Your task to perform on an android device: clear all cookies in the chrome app Image 0: 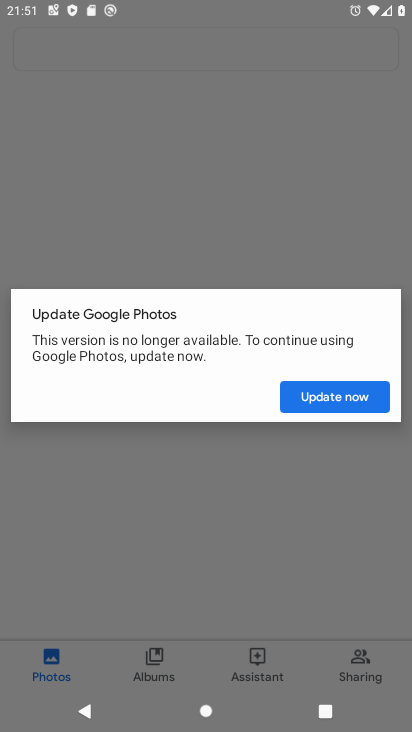
Step 0: press home button
Your task to perform on an android device: clear all cookies in the chrome app Image 1: 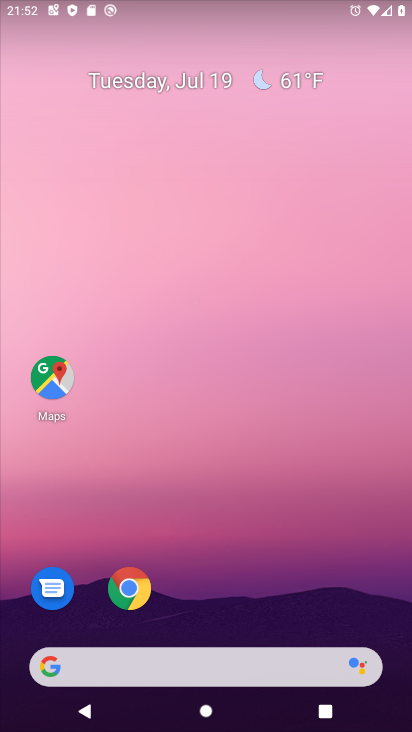
Step 1: click (124, 579)
Your task to perform on an android device: clear all cookies in the chrome app Image 2: 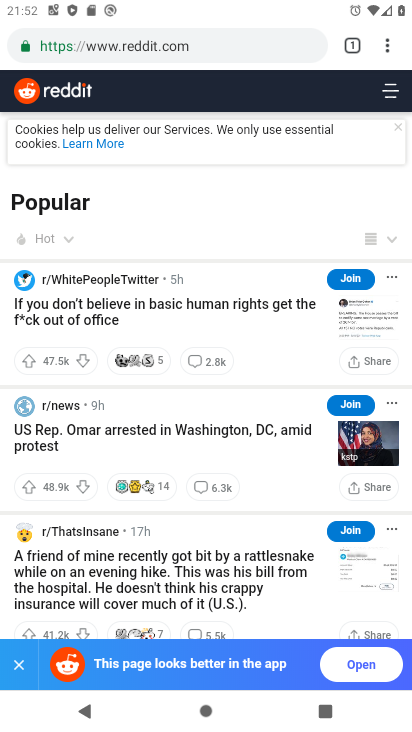
Step 2: click (386, 41)
Your task to perform on an android device: clear all cookies in the chrome app Image 3: 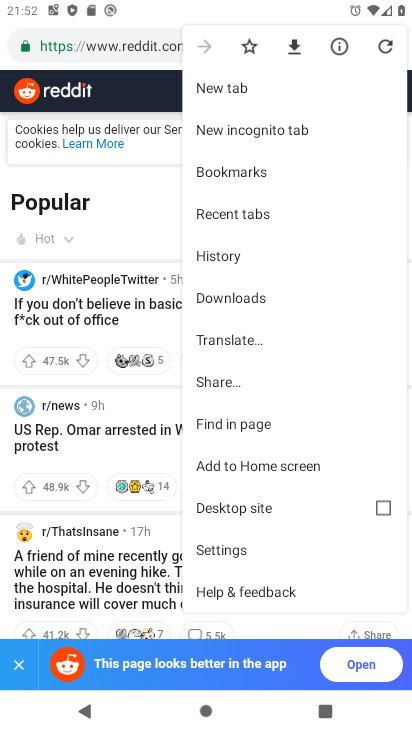
Step 3: click (250, 256)
Your task to perform on an android device: clear all cookies in the chrome app Image 4: 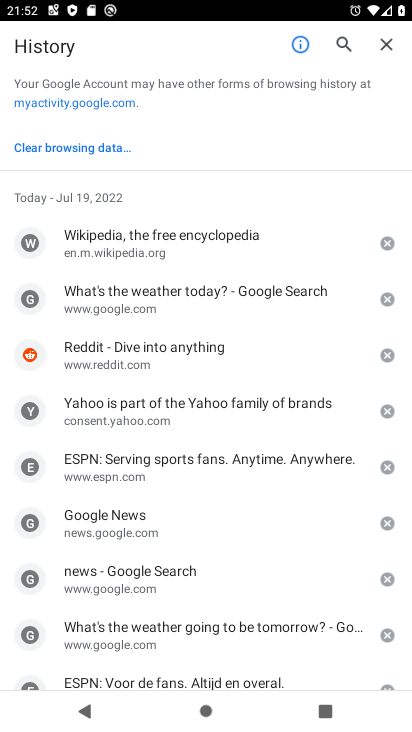
Step 4: click (74, 147)
Your task to perform on an android device: clear all cookies in the chrome app Image 5: 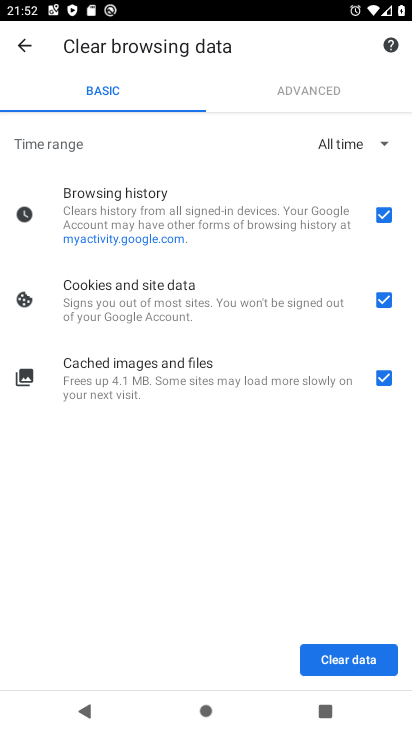
Step 5: click (343, 656)
Your task to perform on an android device: clear all cookies in the chrome app Image 6: 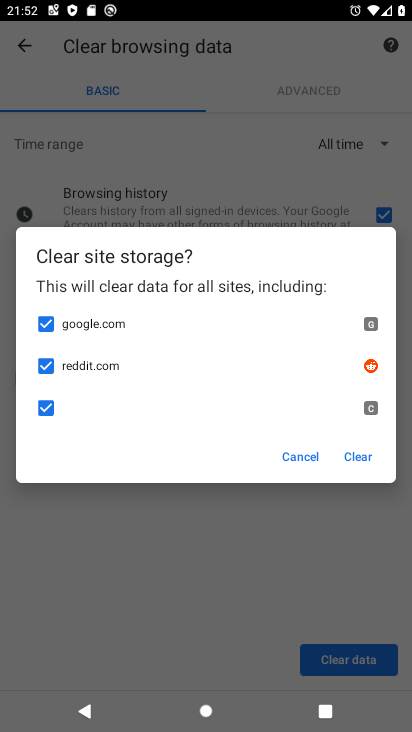
Step 6: click (354, 453)
Your task to perform on an android device: clear all cookies in the chrome app Image 7: 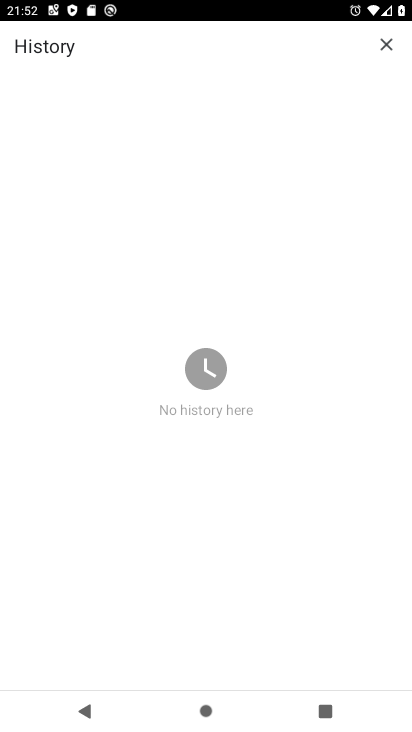
Step 7: task complete